Your task to perform on an android device: Open Android settings Image 0: 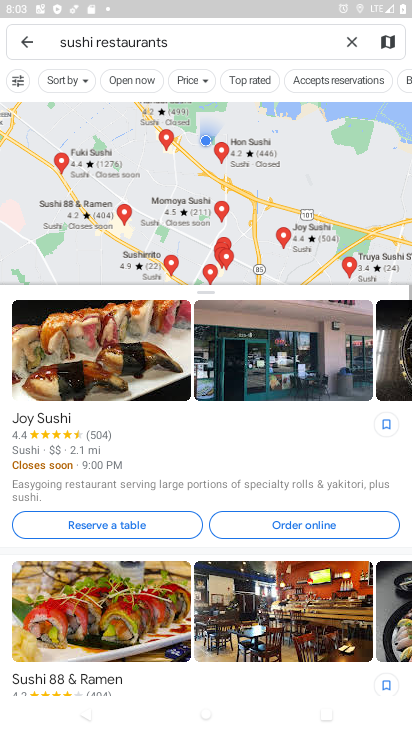
Step 0: press back button
Your task to perform on an android device: Open Android settings Image 1: 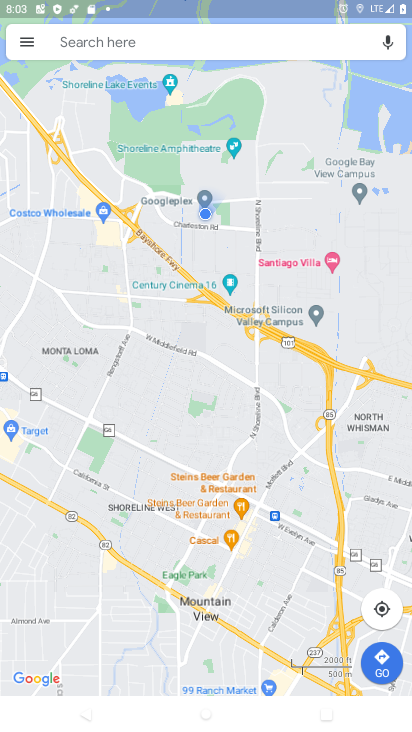
Step 1: press back button
Your task to perform on an android device: Open Android settings Image 2: 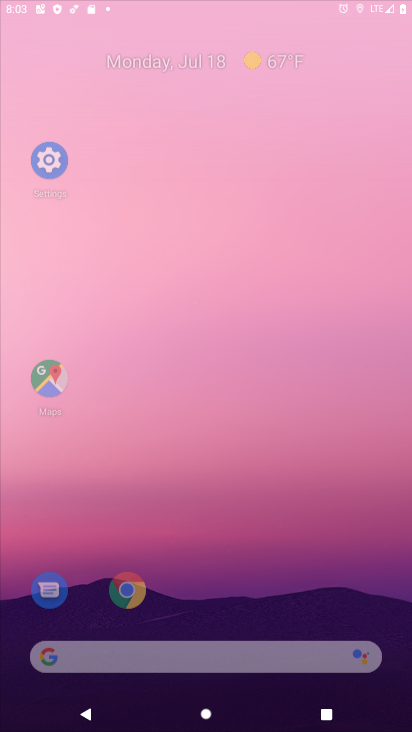
Step 2: press back button
Your task to perform on an android device: Open Android settings Image 3: 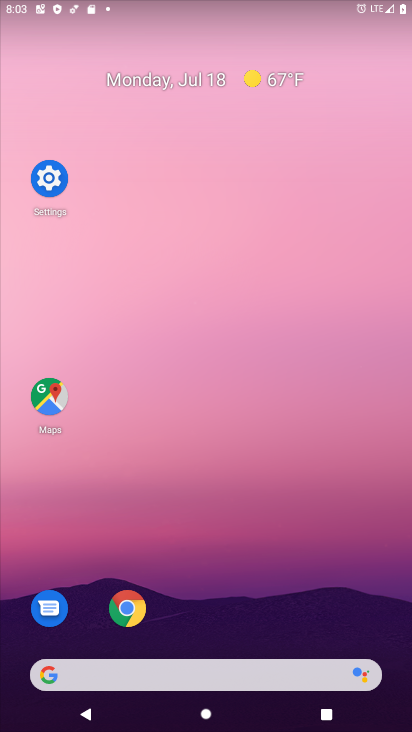
Step 3: click (51, 183)
Your task to perform on an android device: Open Android settings Image 4: 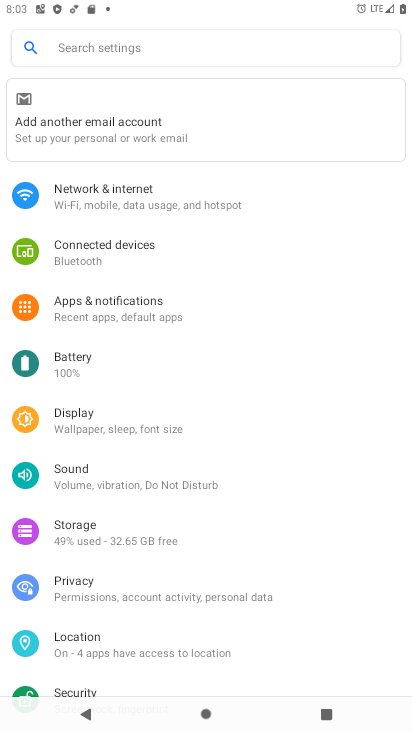
Step 4: task complete